Your task to perform on an android device: Open Reddit.com Image 0: 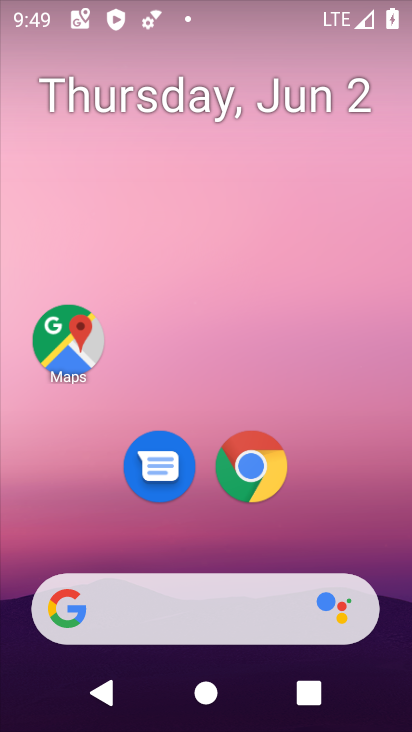
Step 0: click (147, 599)
Your task to perform on an android device: Open Reddit.com Image 1: 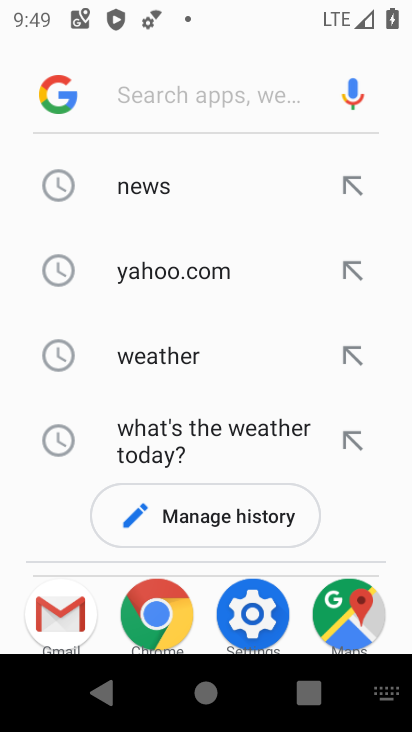
Step 1: type "Reddit.com"
Your task to perform on an android device: Open Reddit.com Image 2: 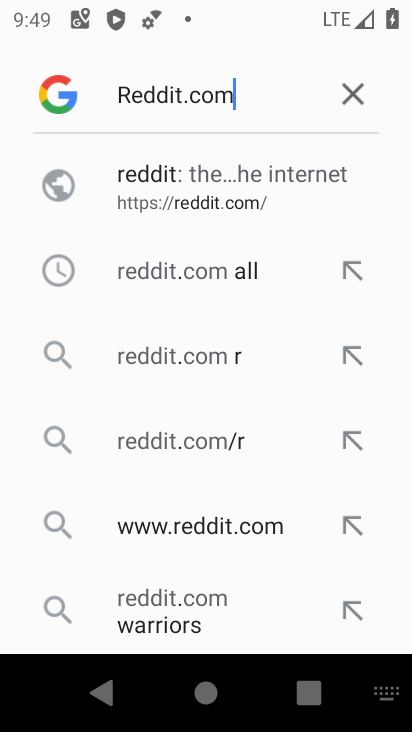
Step 2: click (163, 214)
Your task to perform on an android device: Open Reddit.com Image 3: 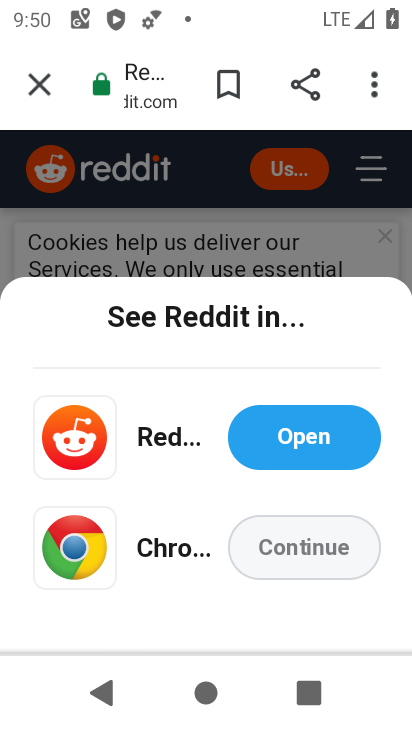
Step 3: click (310, 561)
Your task to perform on an android device: Open Reddit.com Image 4: 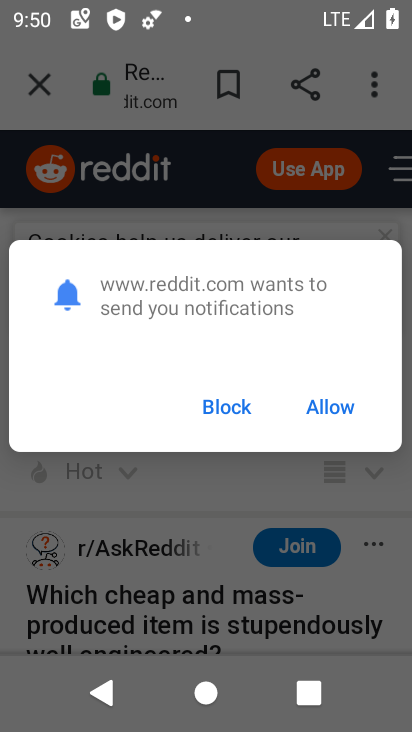
Step 4: click (347, 420)
Your task to perform on an android device: Open Reddit.com Image 5: 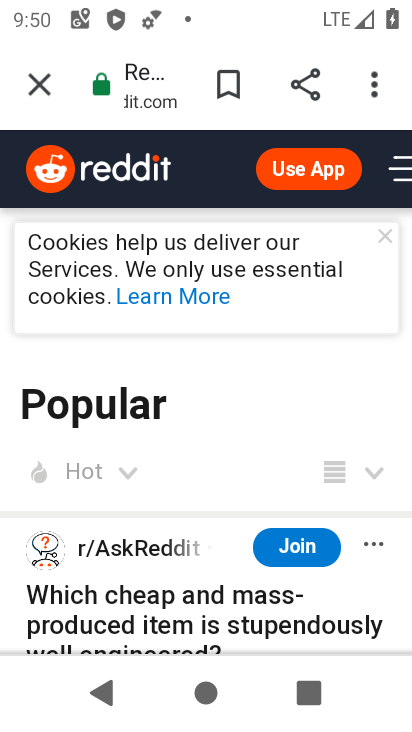
Step 5: task complete